Your task to perform on an android device: Open my contact list Image 0: 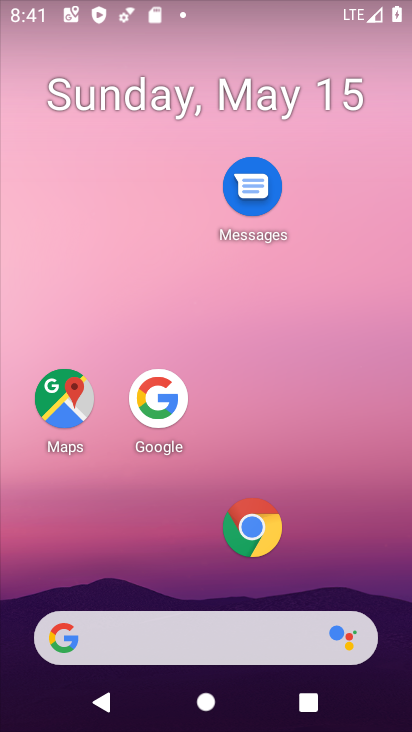
Step 0: press home button
Your task to perform on an android device: Open my contact list Image 1: 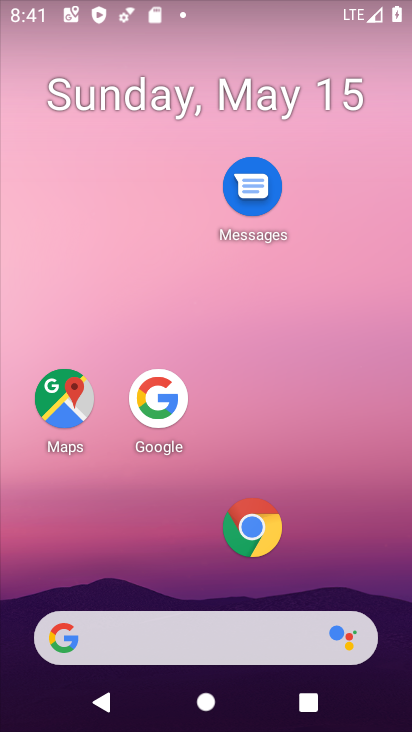
Step 1: drag from (181, 635) to (352, 85)
Your task to perform on an android device: Open my contact list Image 2: 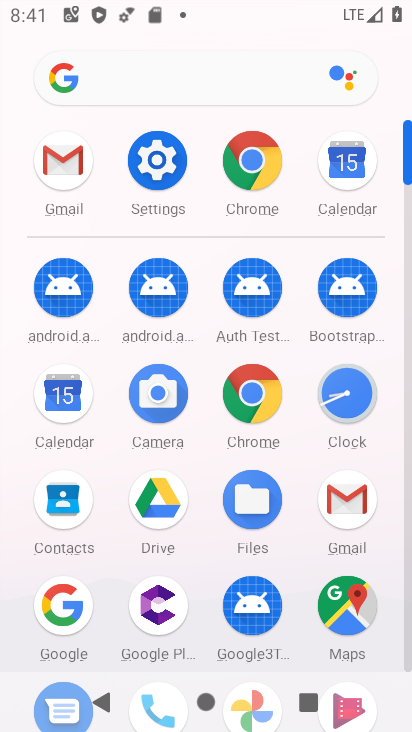
Step 2: click (71, 508)
Your task to perform on an android device: Open my contact list Image 3: 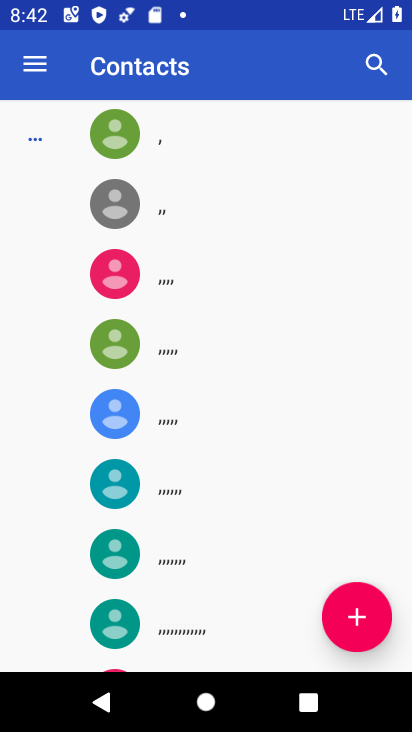
Step 3: task complete